Your task to perform on an android device: manage bookmarks in the chrome app Image 0: 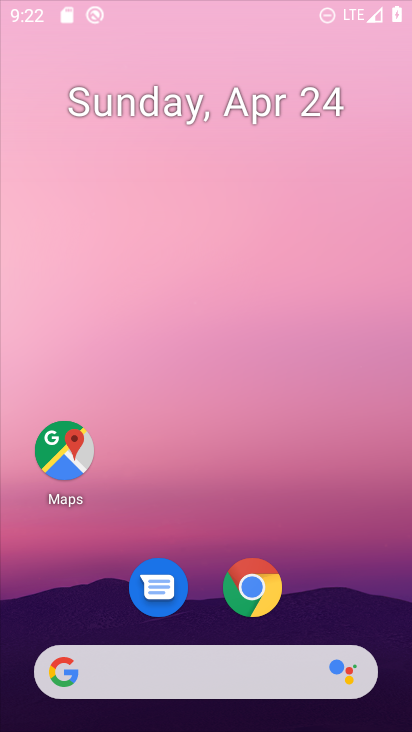
Step 0: click (354, 117)
Your task to perform on an android device: manage bookmarks in the chrome app Image 1: 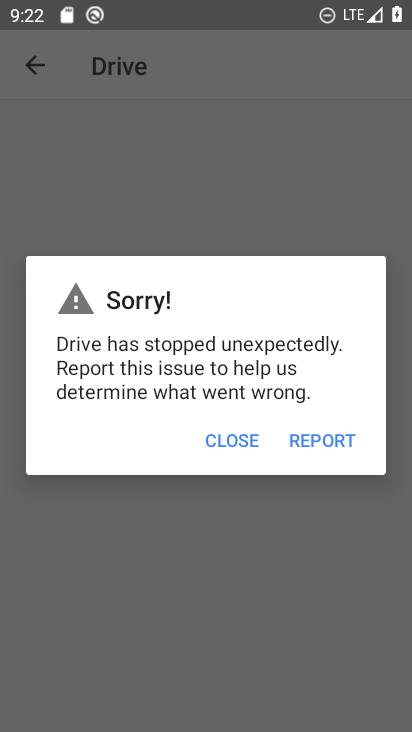
Step 1: press home button
Your task to perform on an android device: manage bookmarks in the chrome app Image 2: 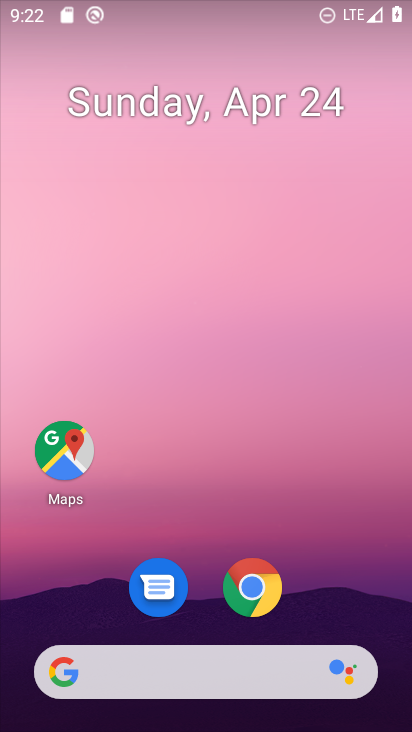
Step 2: drag from (379, 598) to (337, 143)
Your task to perform on an android device: manage bookmarks in the chrome app Image 3: 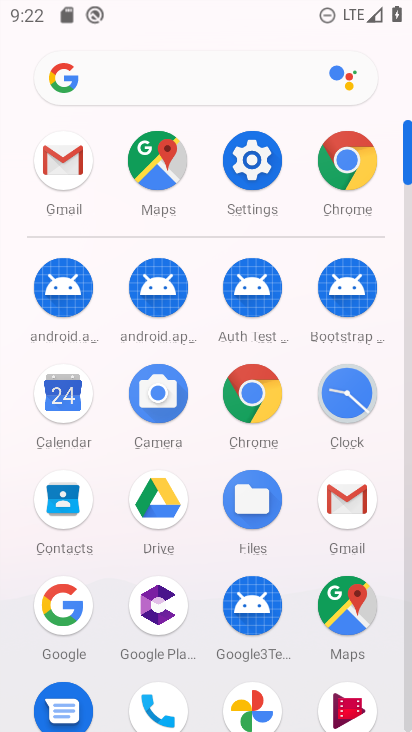
Step 3: click (244, 411)
Your task to perform on an android device: manage bookmarks in the chrome app Image 4: 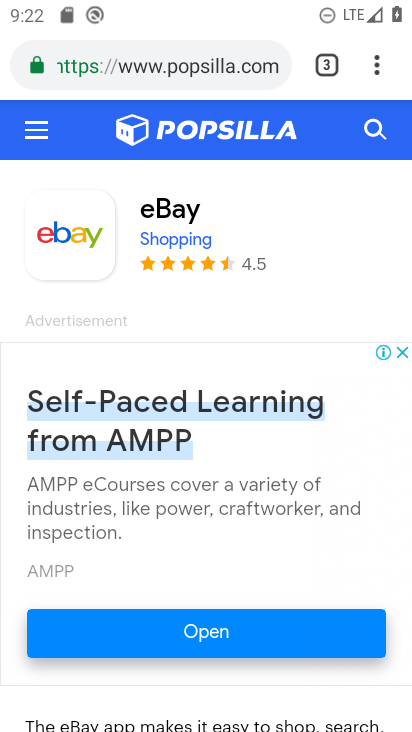
Step 4: drag from (380, 69) to (176, 320)
Your task to perform on an android device: manage bookmarks in the chrome app Image 5: 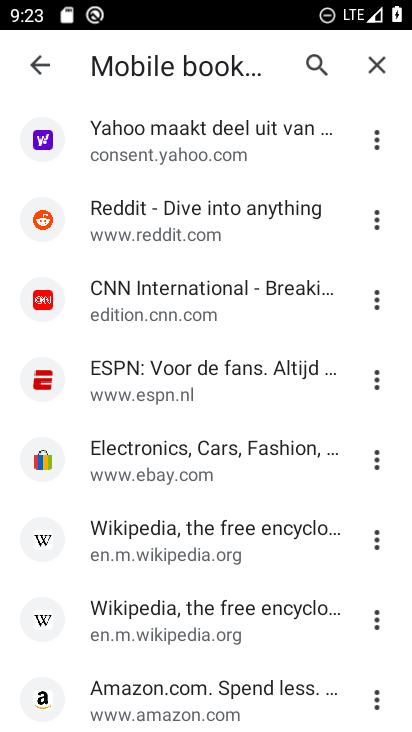
Step 5: drag from (184, 589) to (212, 313)
Your task to perform on an android device: manage bookmarks in the chrome app Image 6: 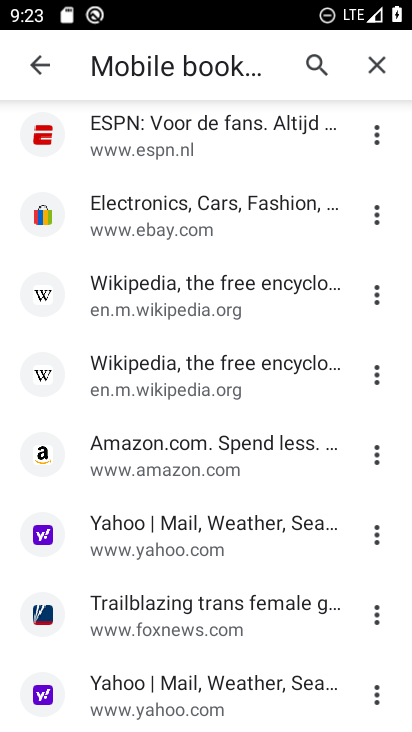
Step 6: click (384, 141)
Your task to perform on an android device: manage bookmarks in the chrome app Image 7: 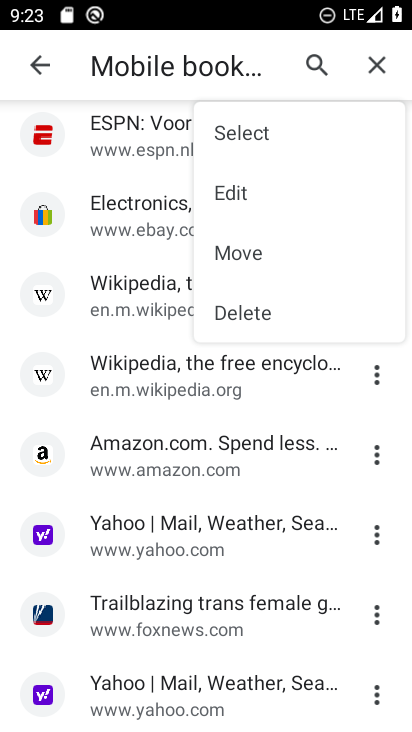
Step 7: click (245, 311)
Your task to perform on an android device: manage bookmarks in the chrome app Image 8: 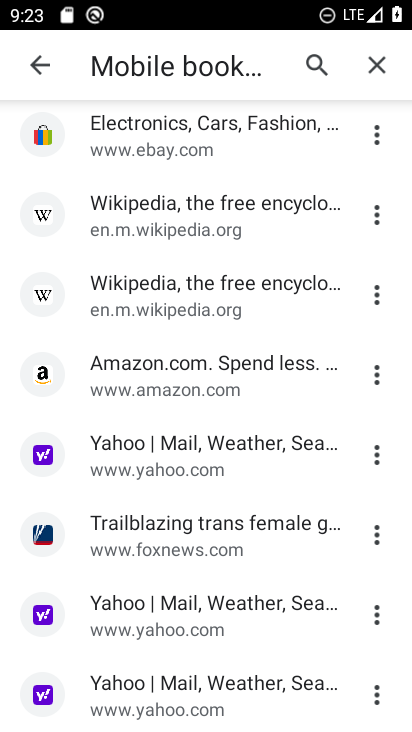
Step 8: task complete